Your task to perform on an android device: Open Amazon Image 0: 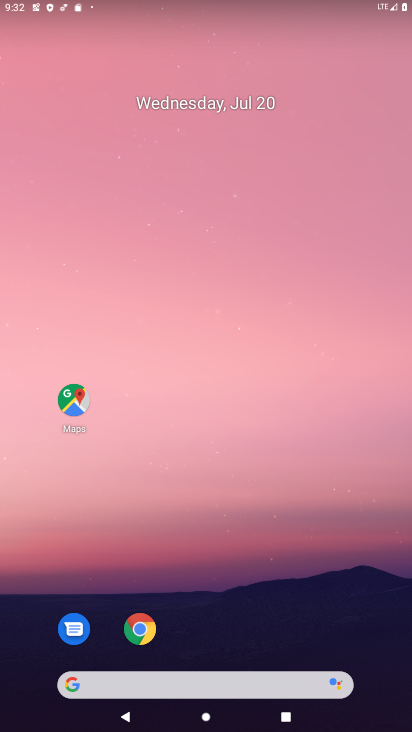
Step 0: press home button
Your task to perform on an android device: Open Amazon Image 1: 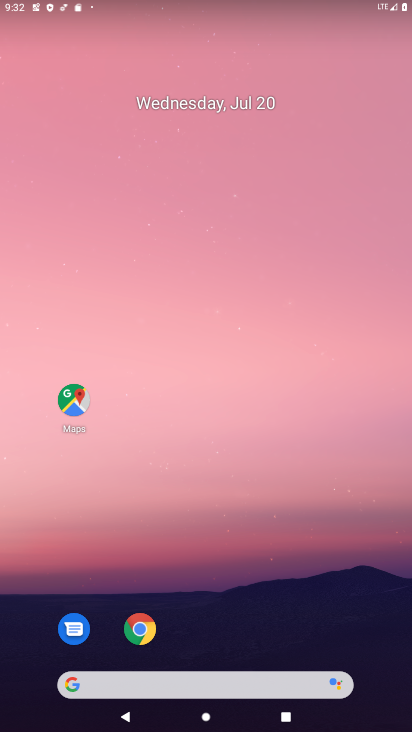
Step 1: drag from (340, 595) to (308, 97)
Your task to perform on an android device: Open Amazon Image 2: 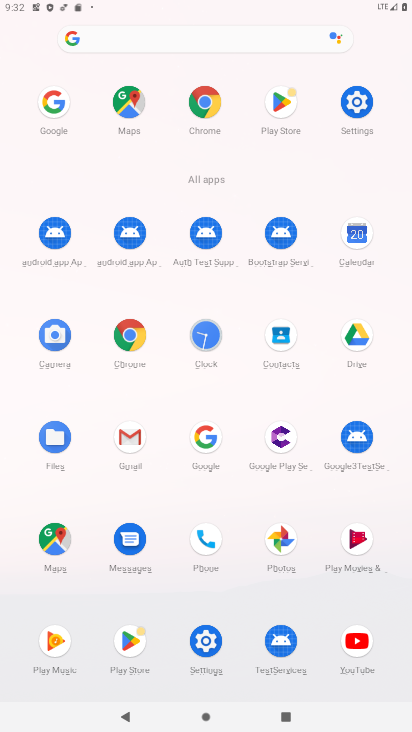
Step 2: click (202, 126)
Your task to perform on an android device: Open Amazon Image 3: 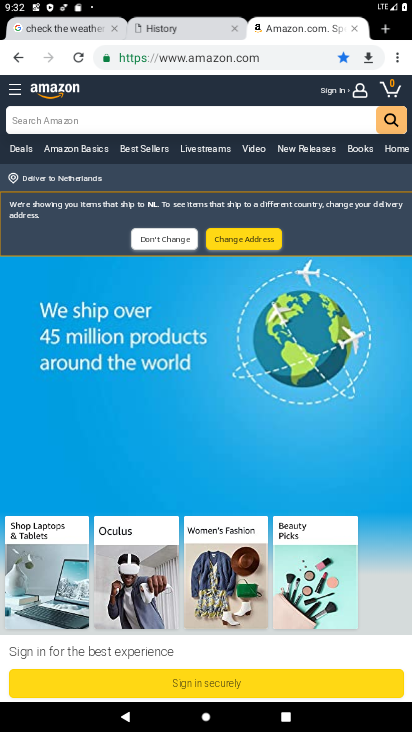
Step 3: task complete